Your task to perform on an android device: Go to Google maps Image 0: 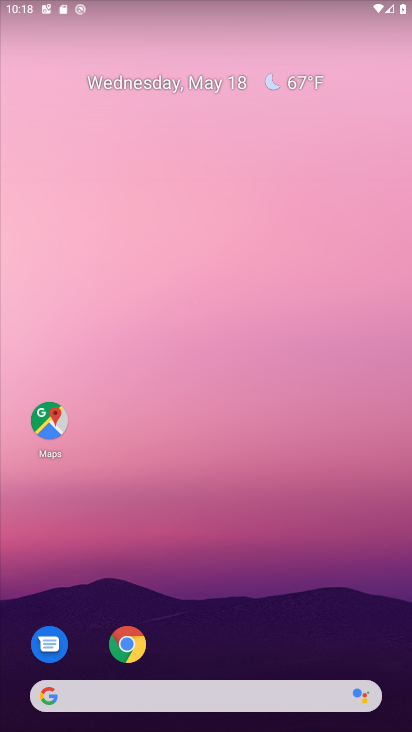
Step 0: click (49, 424)
Your task to perform on an android device: Go to Google maps Image 1: 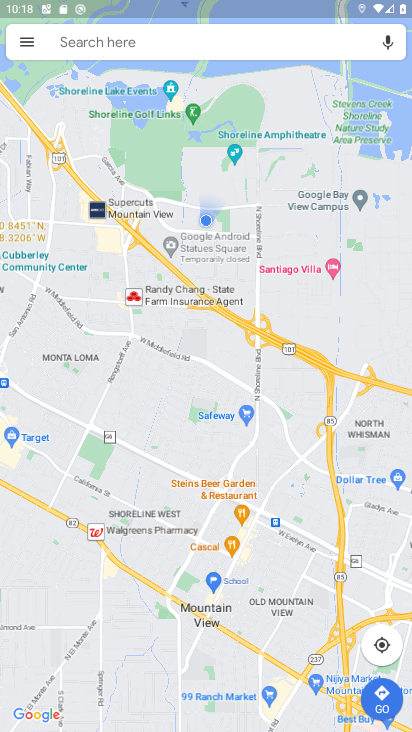
Step 1: task complete